Your task to perform on an android device: turn on translation in the chrome app Image 0: 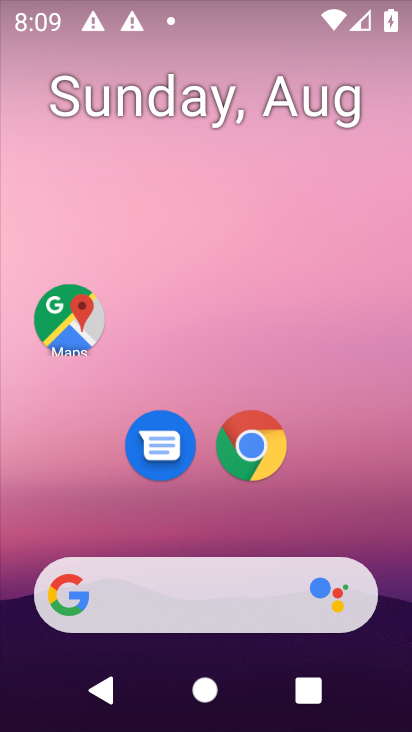
Step 0: press home button
Your task to perform on an android device: turn on translation in the chrome app Image 1: 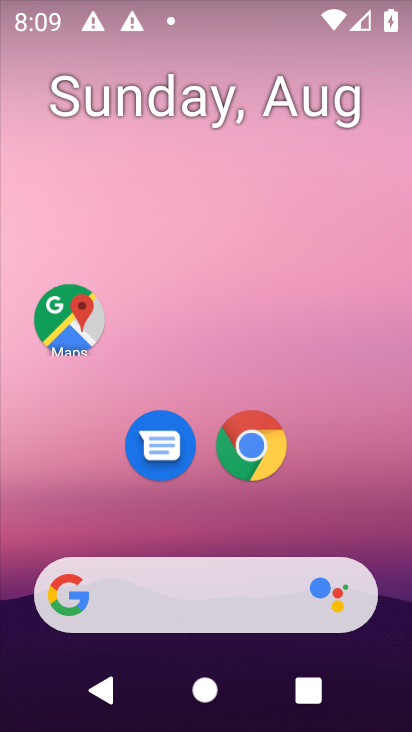
Step 1: drag from (203, 531) to (228, 21)
Your task to perform on an android device: turn on translation in the chrome app Image 2: 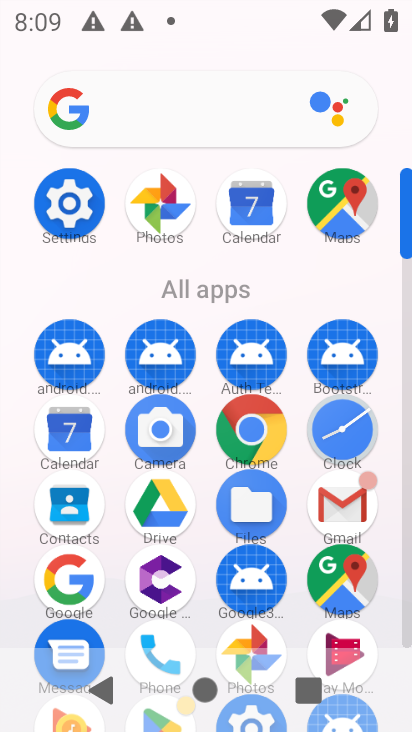
Step 2: click (247, 423)
Your task to perform on an android device: turn on translation in the chrome app Image 3: 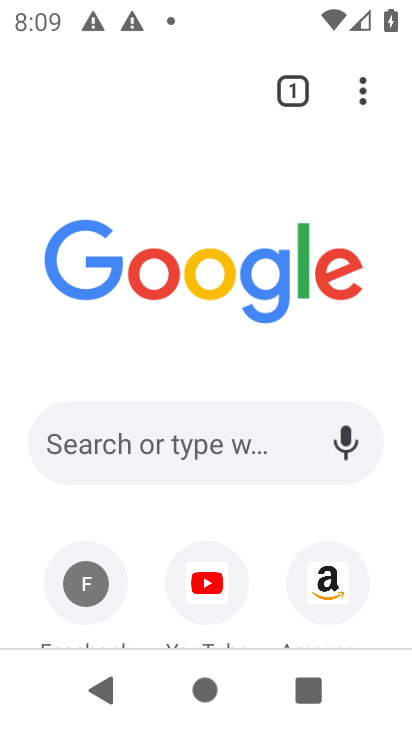
Step 3: click (358, 82)
Your task to perform on an android device: turn on translation in the chrome app Image 4: 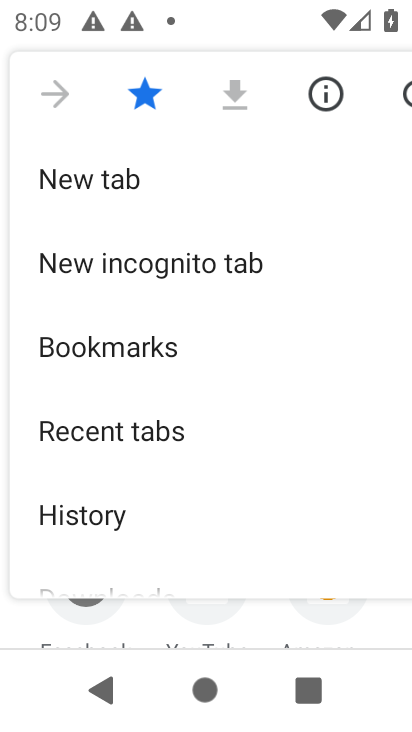
Step 4: drag from (198, 527) to (194, 100)
Your task to perform on an android device: turn on translation in the chrome app Image 5: 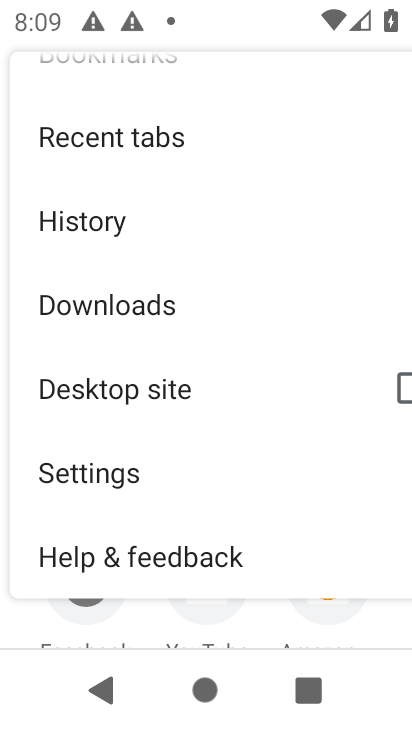
Step 5: click (155, 478)
Your task to perform on an android device: turn on translation in the chrome app Image 6: 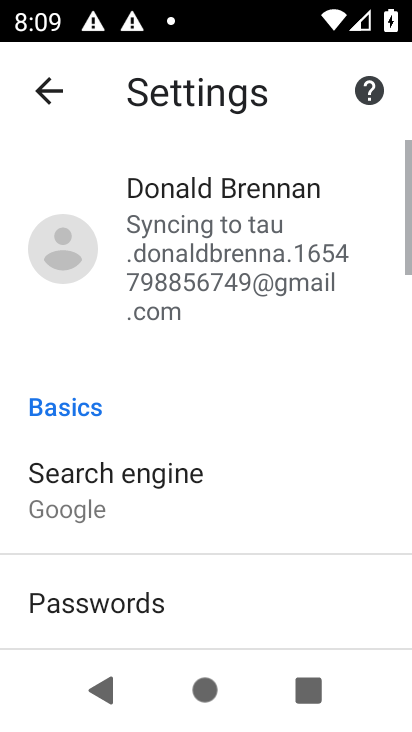
Step 6: drag from (211, 592) to (206, 134)
Your task to perform on an android device: turn on translation in the chrome app Image 7: 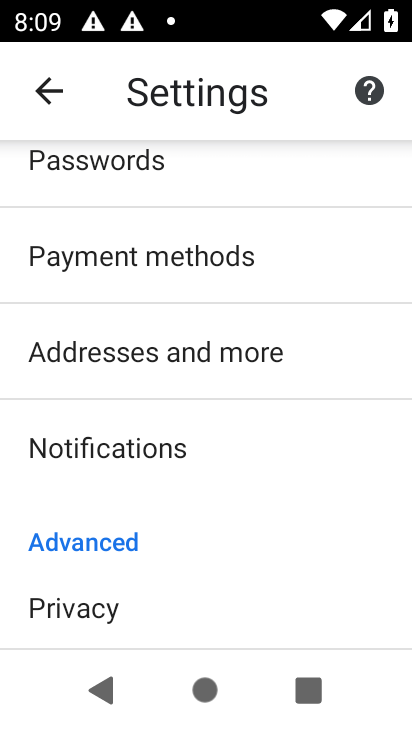
Step 7: drag from (208, 587) to (252, 158)
Your task to perform on an android device: turn on translation in the chrome app Image 8: 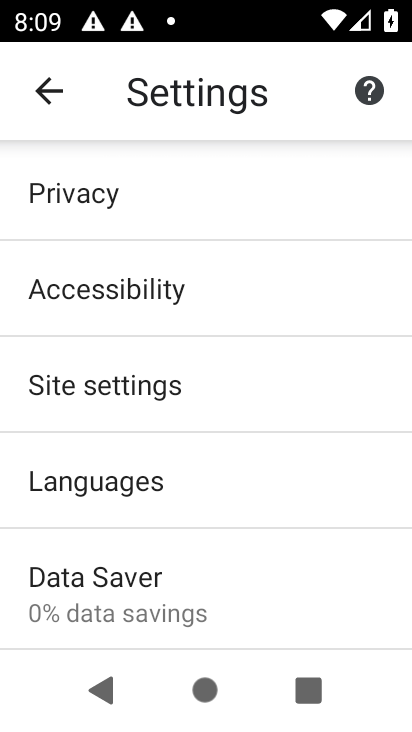
Step 8: click (178, 482)
Your task to perform on an android device: turn on translation in the chrome app Image 9: 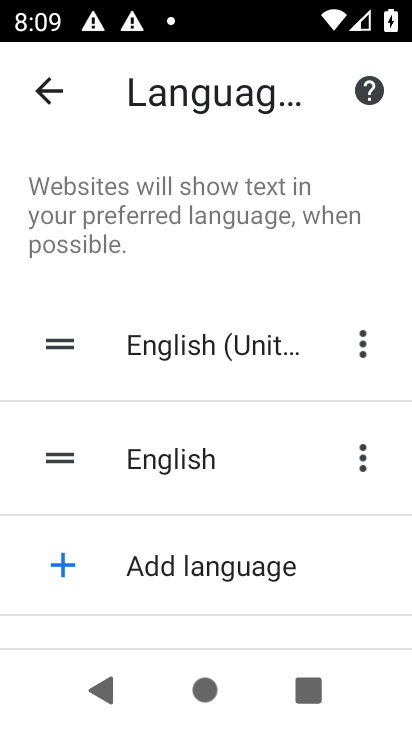
Step 9: task complete